Your task to perform on an android device: Open the map Image 0: 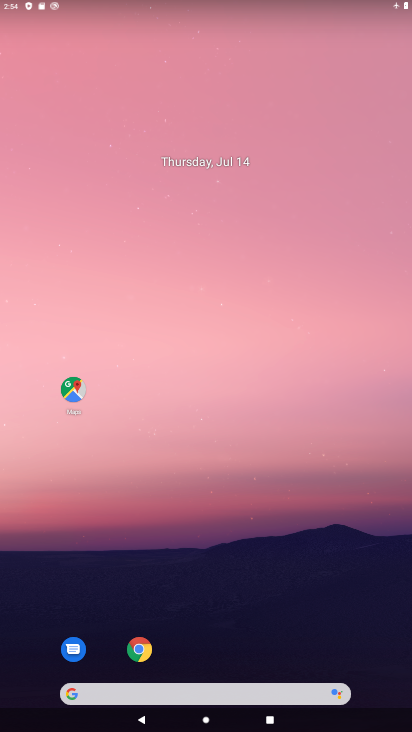
Step 0: click (76, 393)
Your task to perform on an android device: Open the map Image 1: 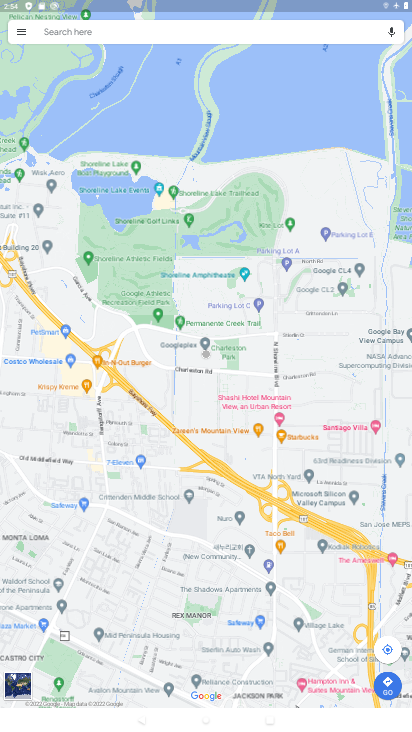
Step 1: task complete